Your task to perform on an android device: Add "panasonic triple a" to the cart on bestbuy.com, then select checkout. Image 0: 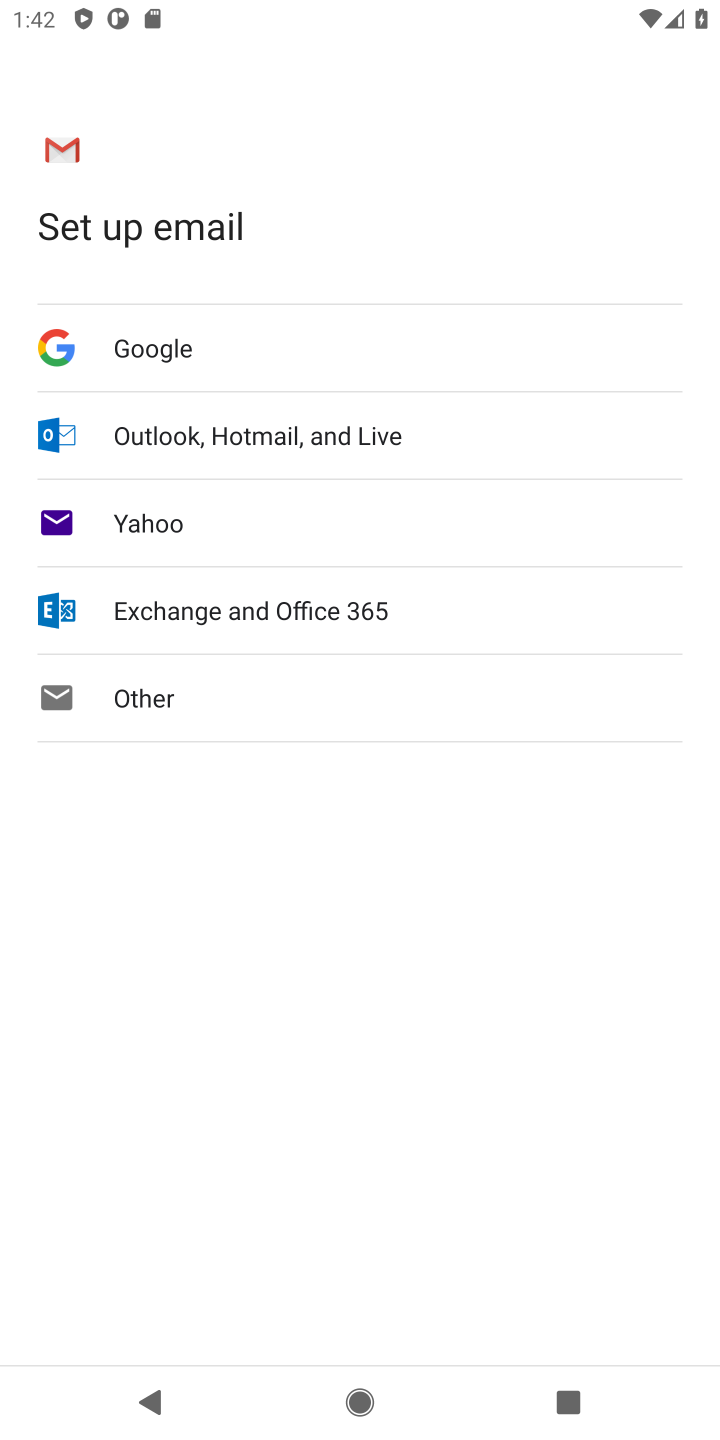
Step 0: press home button
Your task to perform on an android device: Add "panasonic triple a" to the cart on bestbuy.com, then select checkout. Image 1: 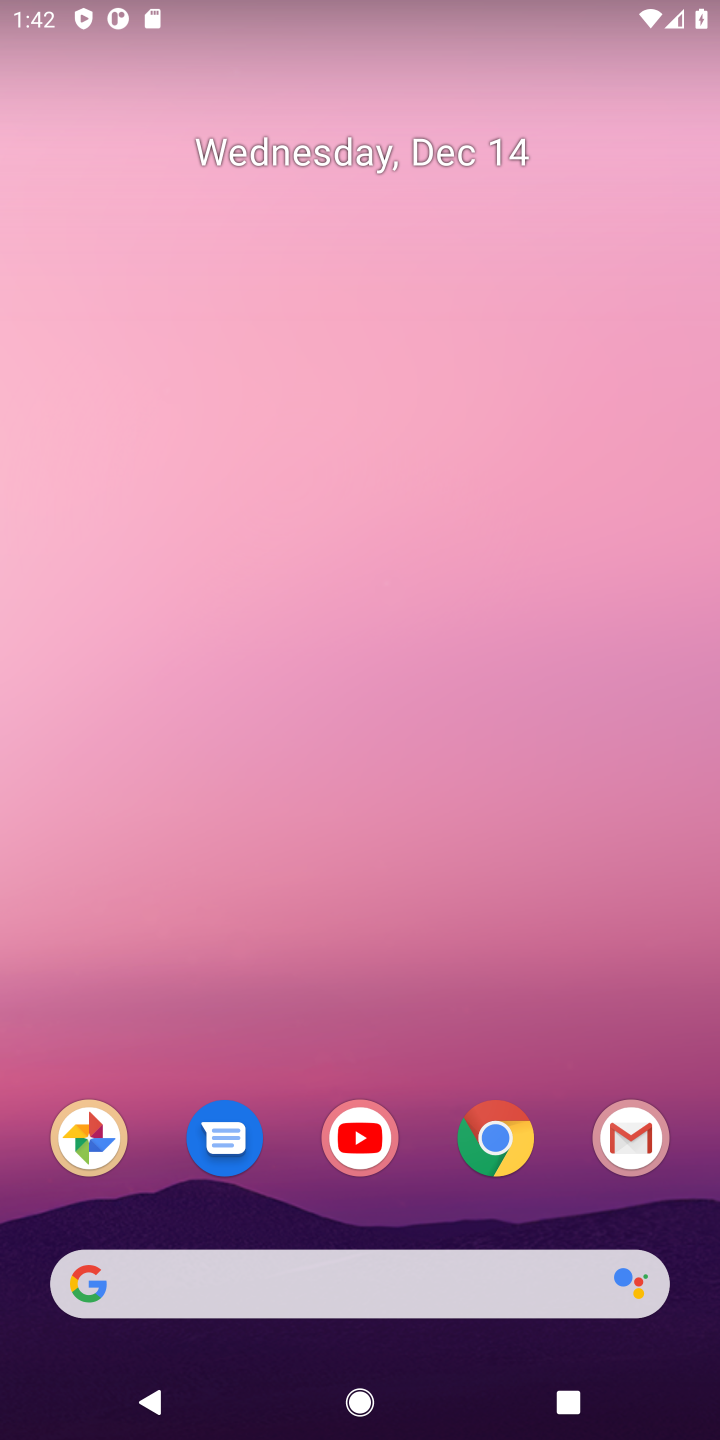
Step 1: click (481, 1132)
Your task to perform on an android device: Add "panasonic triple a" to the cart on bestbuy.com, then select checkout. Image 2: 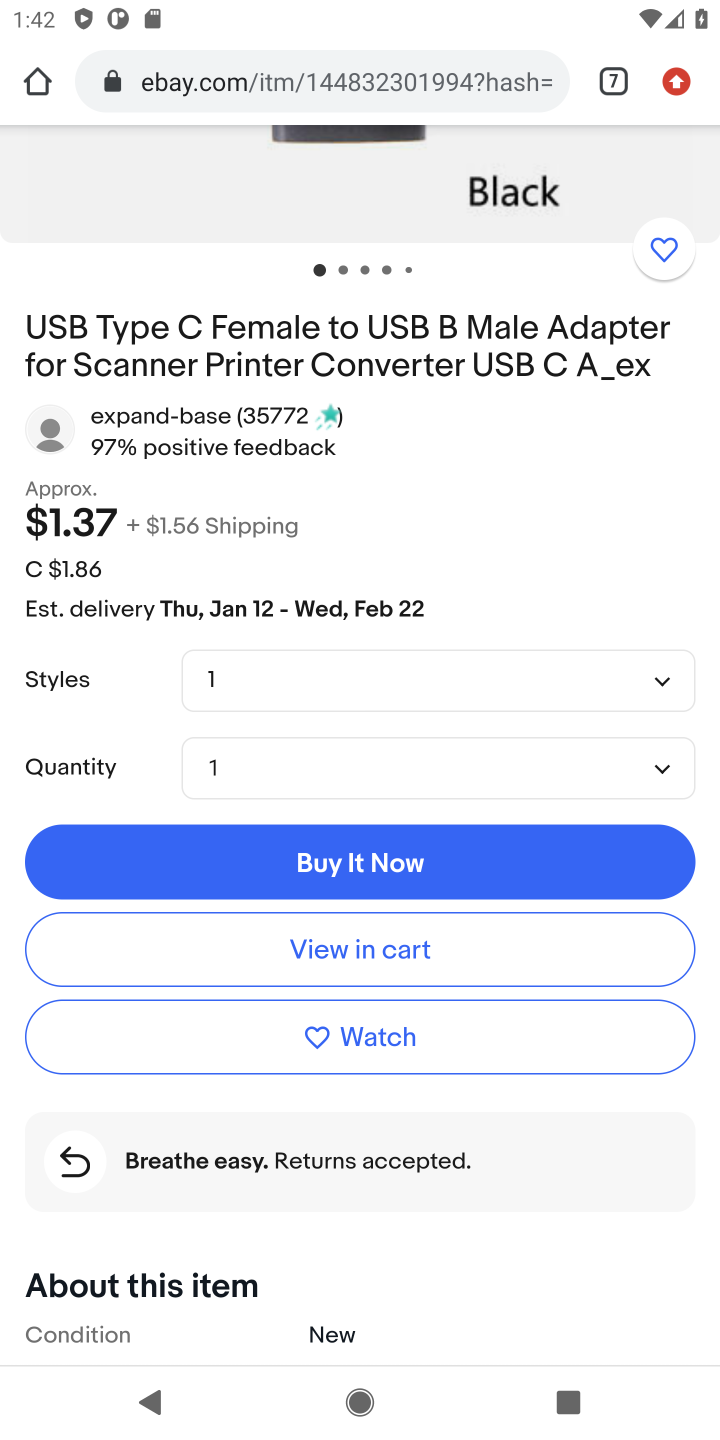
Step 2: click (613, 81)
Your task to perform on an android device: Add "panasonic triple a" to the cart on bestbuy.com, then select checkout. Image 3: 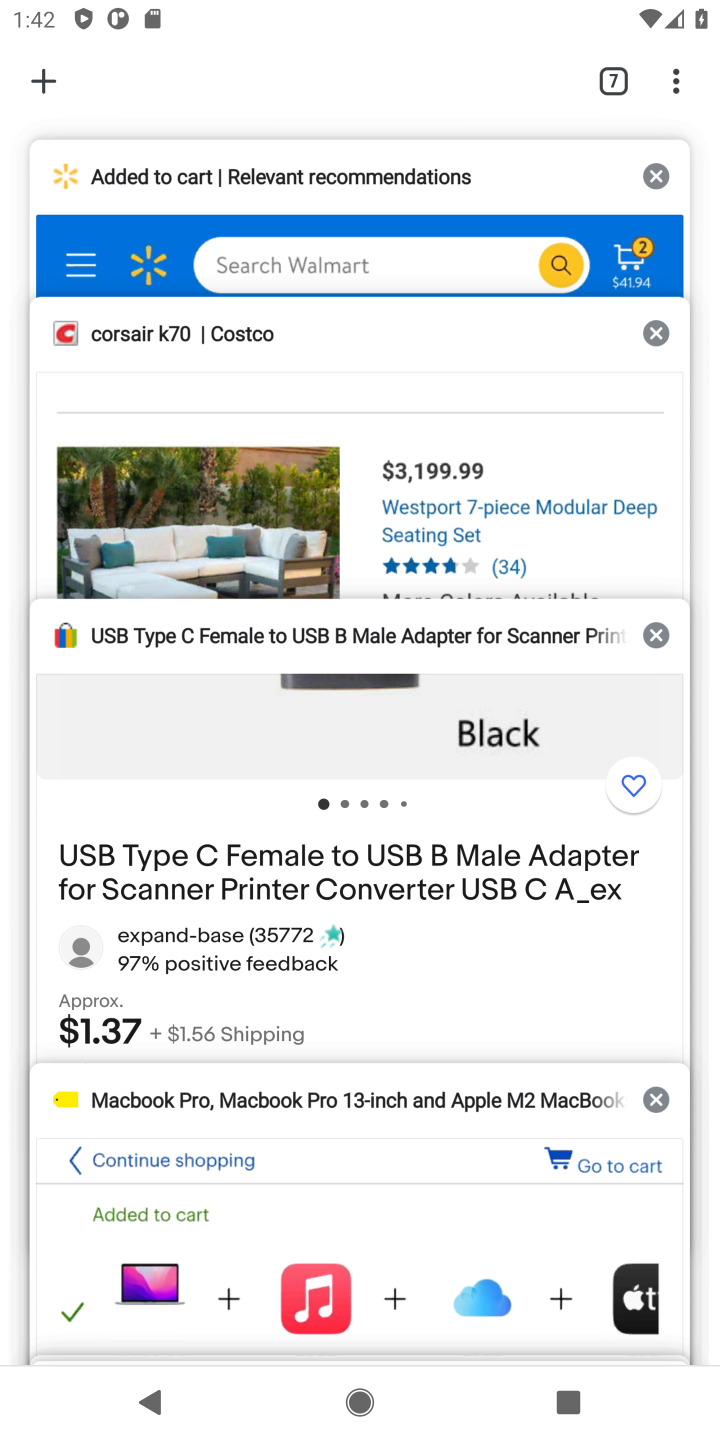
Step 3: click (197, 1127)
Your task to perform on an android device: Add "panasonic triple a" to the cart on bestbuy.com, then select checkout. Image 4: 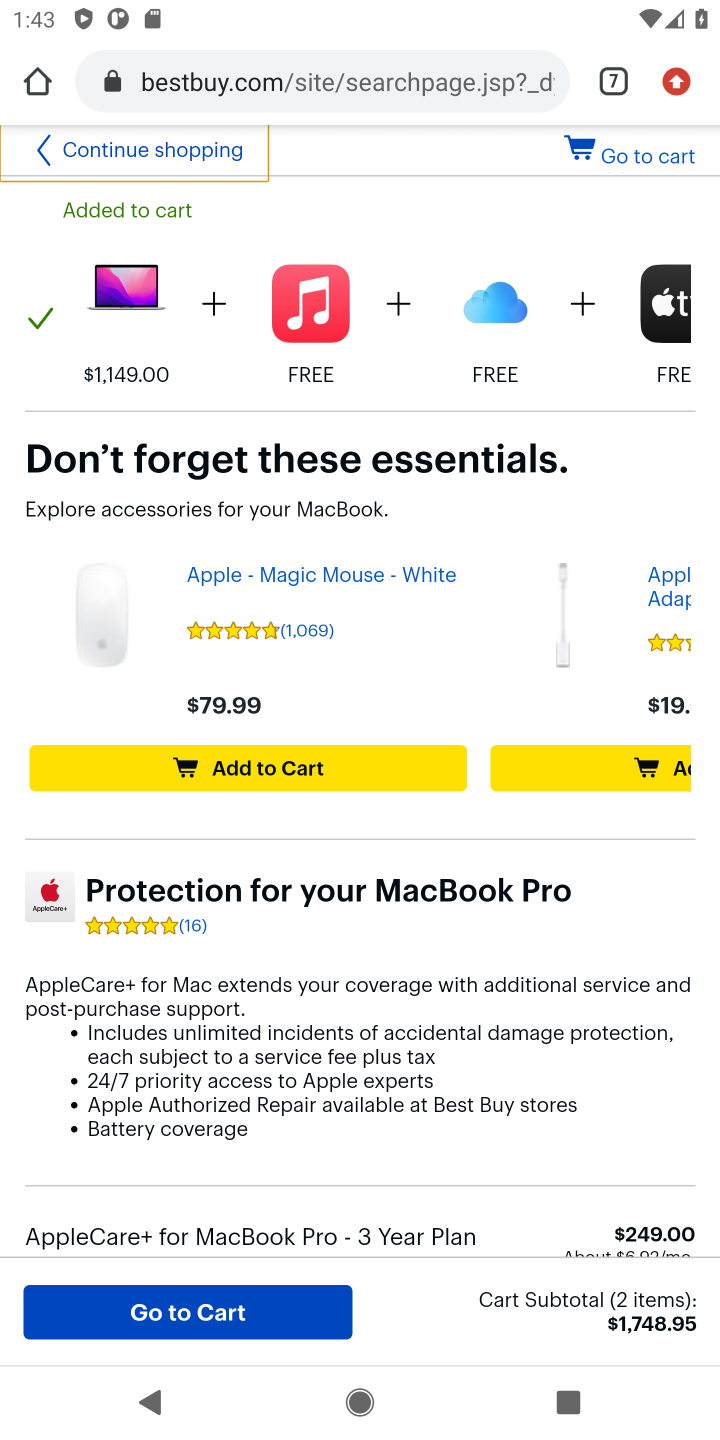
Step 4: click (196, 143)
Your task to perform on an android device: Add "panasonic triple a" to the cart on bestbuy.com, then select checkout. Image 5: 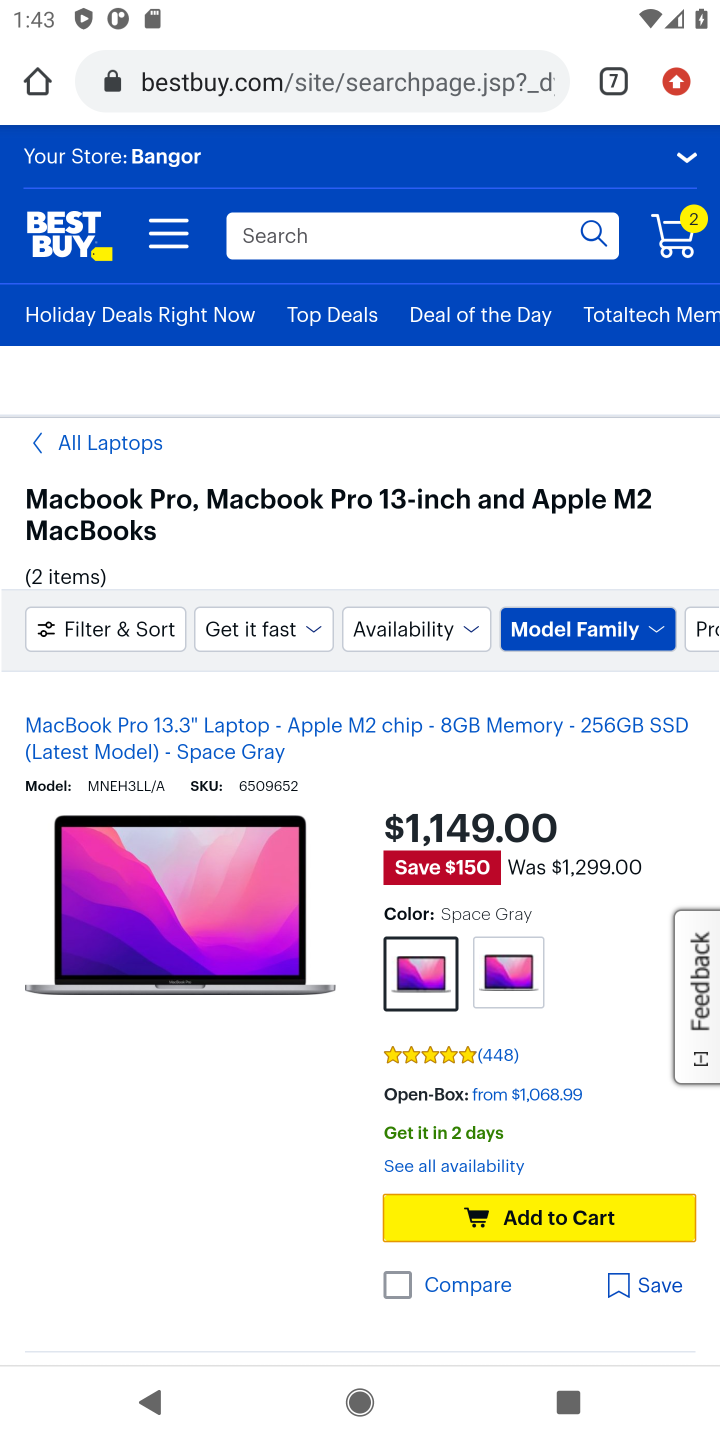
Step 5: click (284, 241)
Your task to perform on an android device: Add "panasonic triple a" to the cart on bestbuy.com, then select checkout. Image 6: 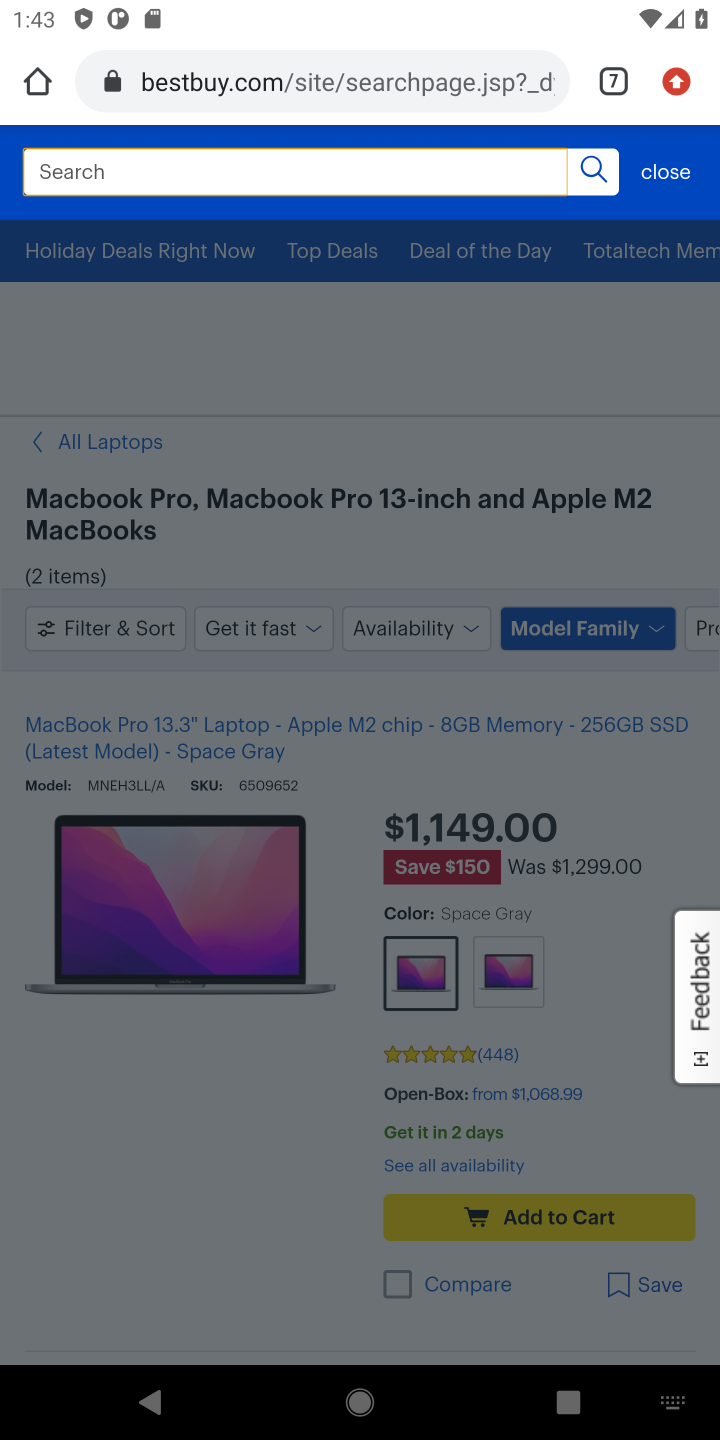
Step 6: type "panasonic triple a battery"
Your task to perform on an android device: Add "panasonic triple a" to the cart on bestbuy.com, then select checkout. Image 7: 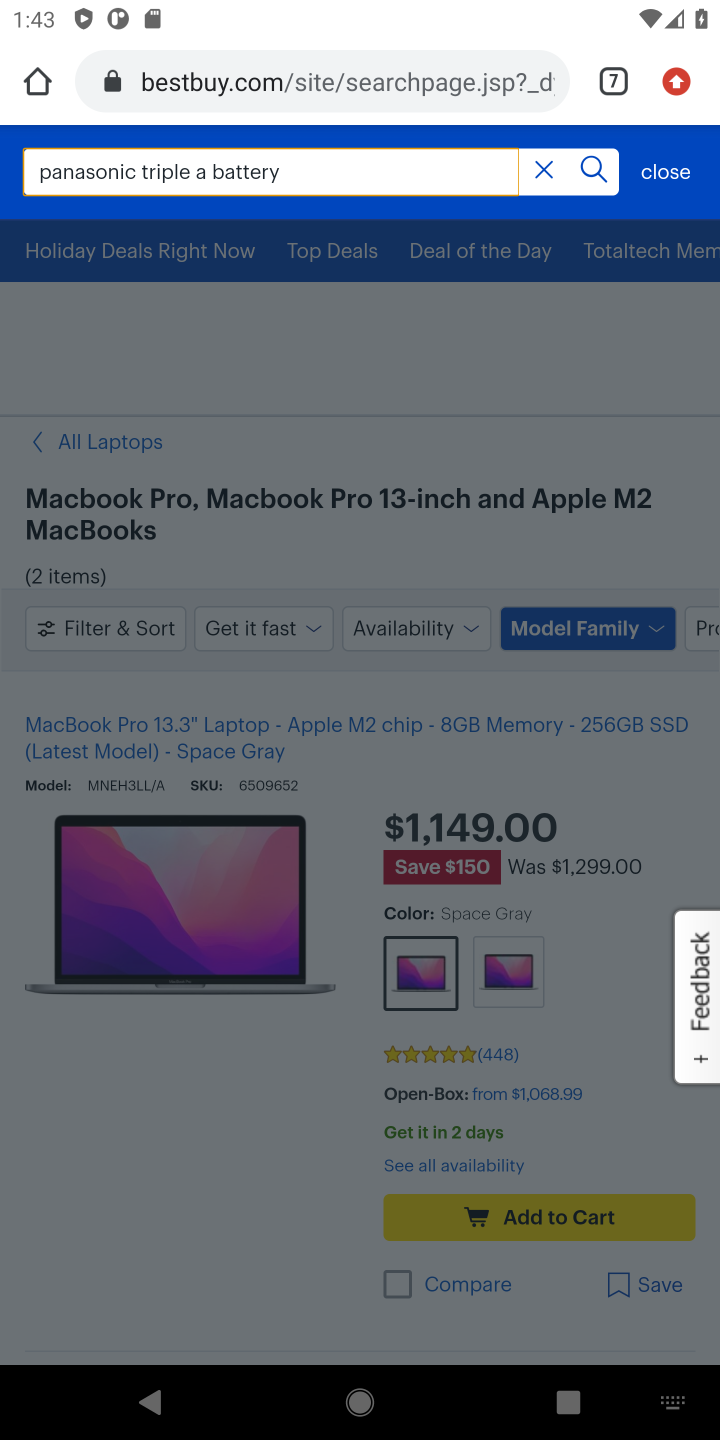
Step 7: click (601, 170)
Your task to perform on an android device: Add "panasonic triple a" to the cart on bestbuy.com, then select checkout. Image 8: 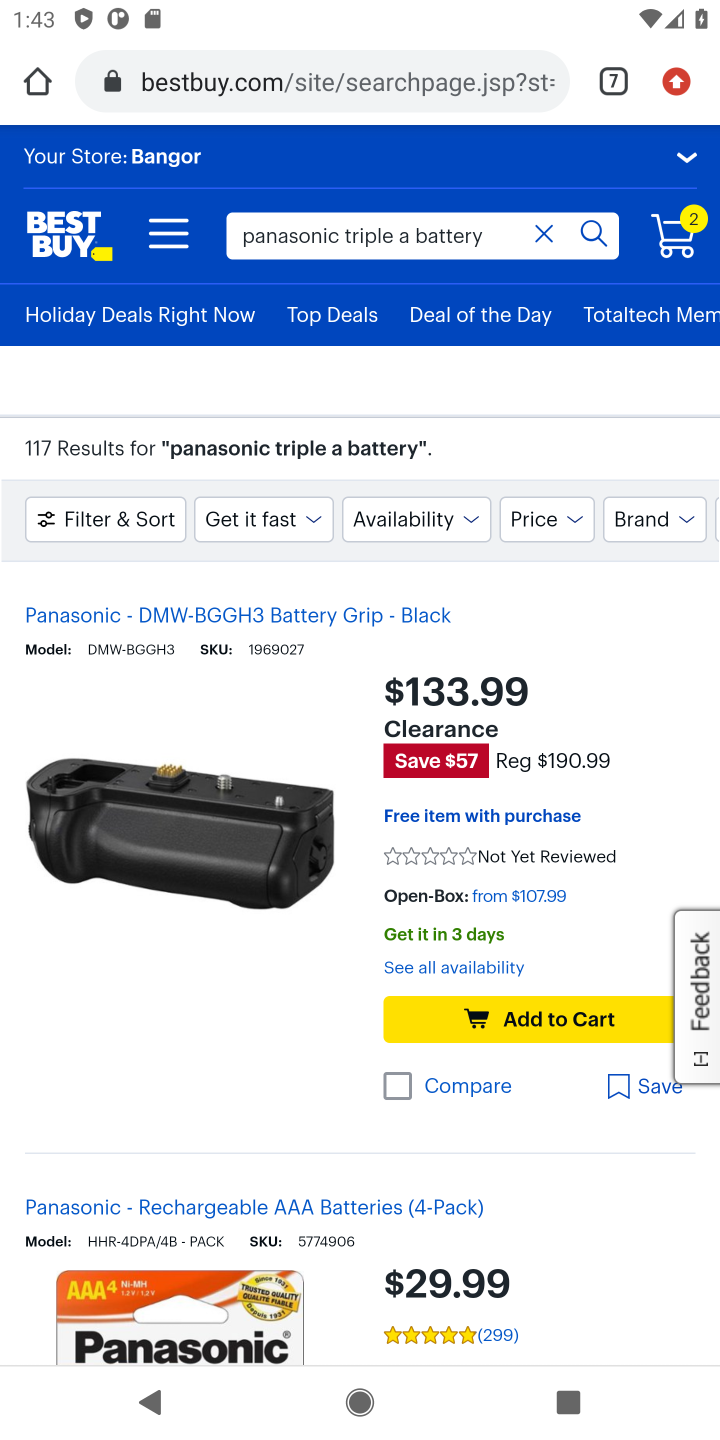
Step 8: drag from (565, 1291) to (595, 579)
Your task to perform on an android device: Add "panasonic triple a" to the cart on bestbuy.com, then select checkout. Image 9: 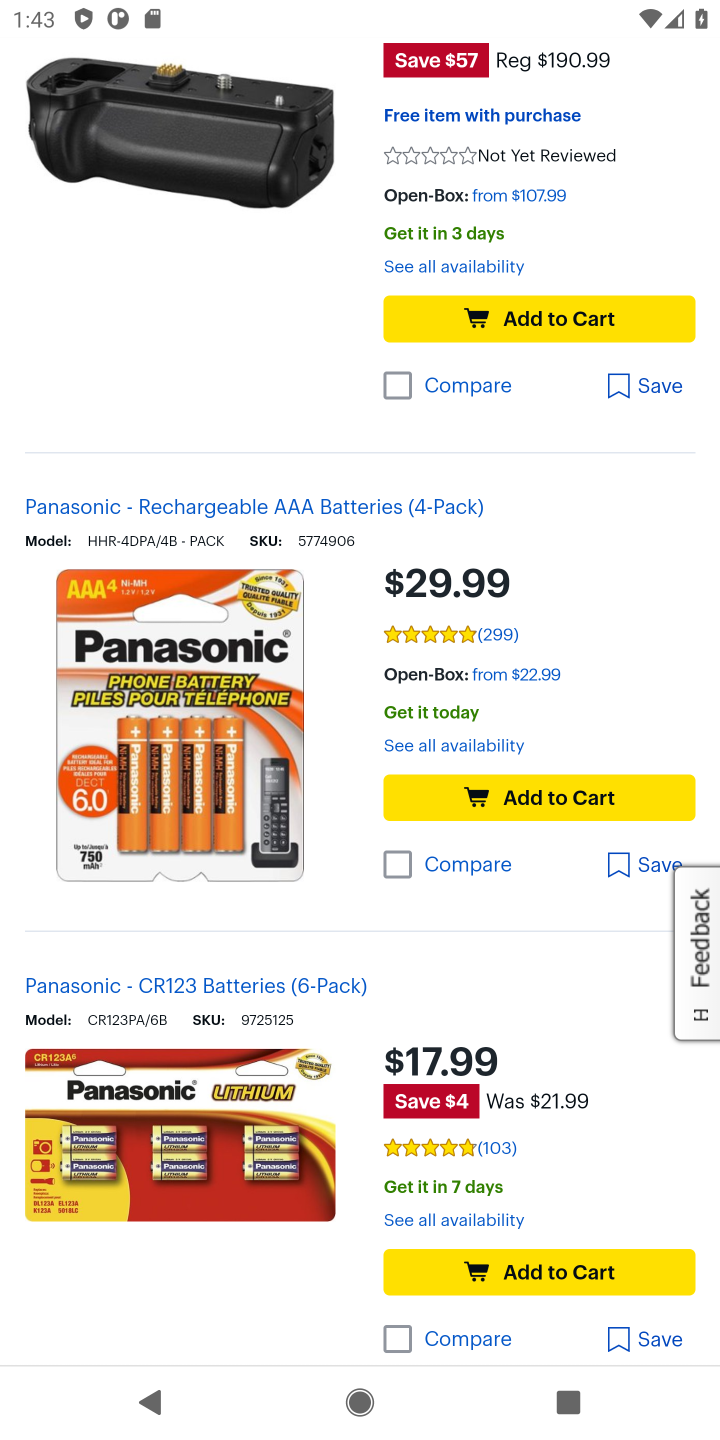
Step 9: click (561, 799)
Your task to perform on an android device: Add "panasonic triple a" to the cart on bestbuy.com, then select checkout. Image 10: 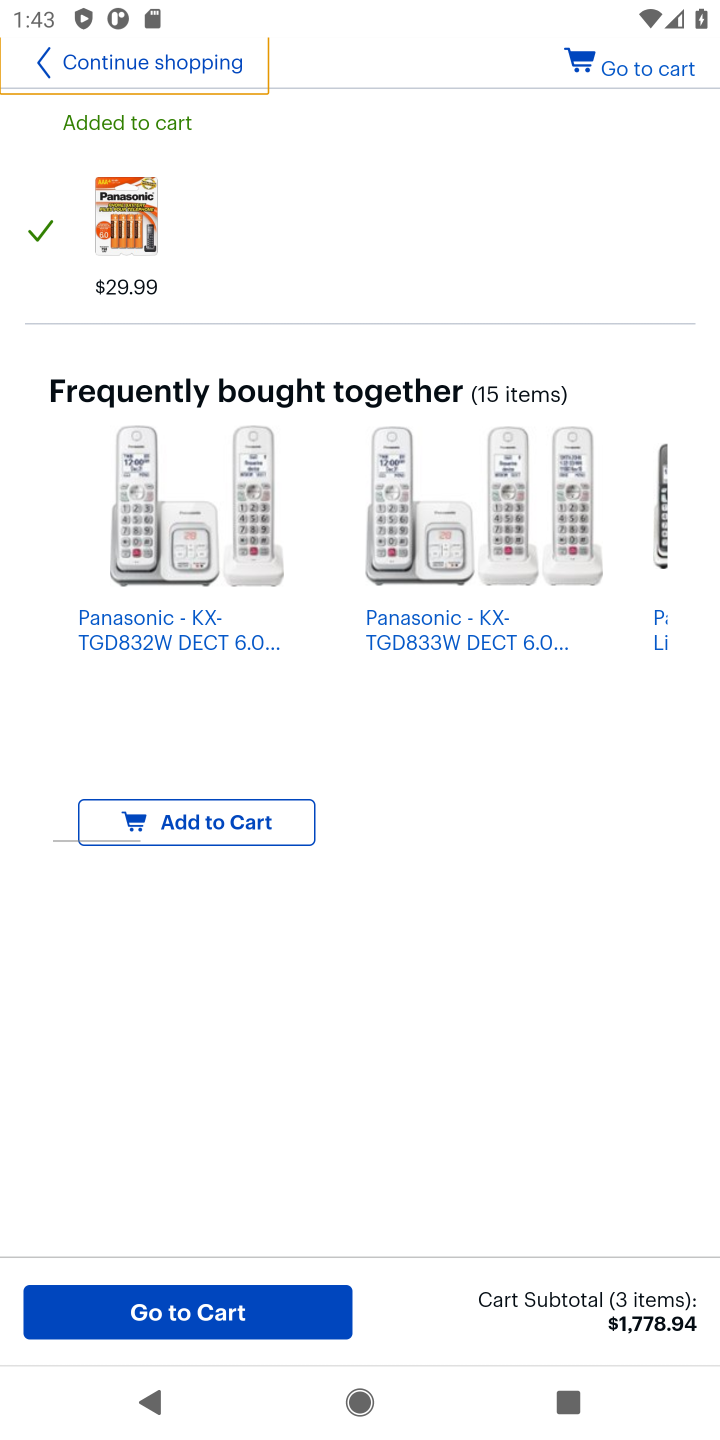
Step 10: task complete